Your task to perform on an android device: Check the news Image 0: 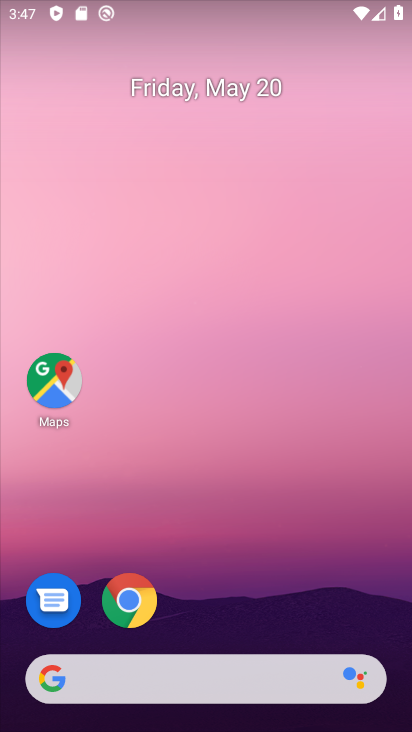
Step 0: click (165, 683)
Your task to perform on an android device: Check the news Image 1: 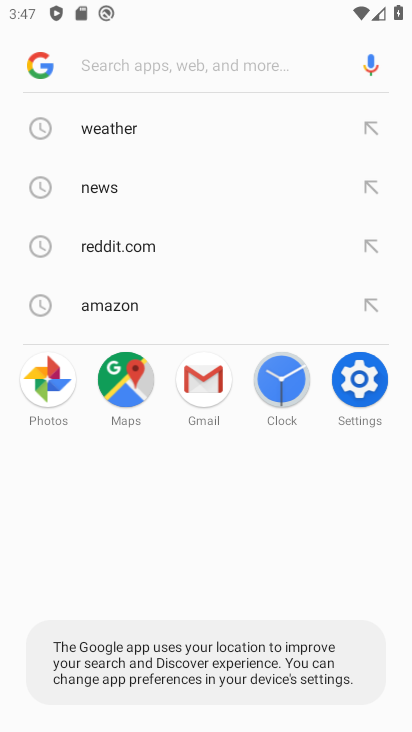
Step 1: click (91, 187)
Your task to perform on an android device: Check the news Image 2: 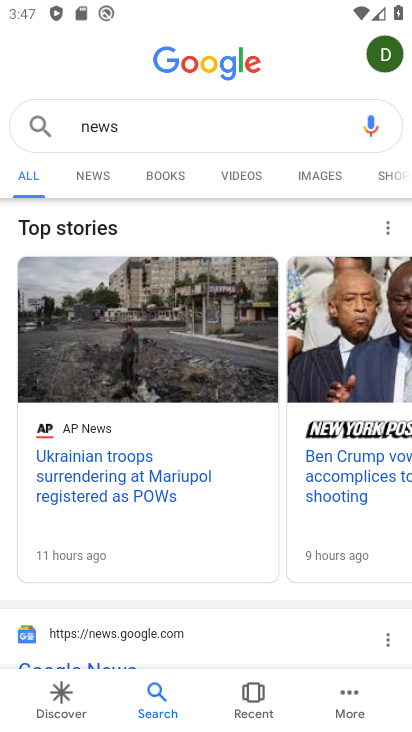
Step 2: task complete